Your task to perform on an android device: turn on showing notifications on the lock screen Image 0: 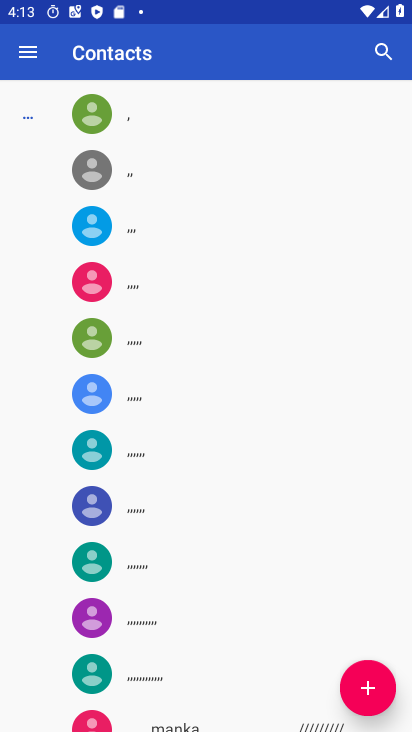
Step 0: press home button
Your task to perform on an android device: turn on showing notifications on the lock screen Image 1: 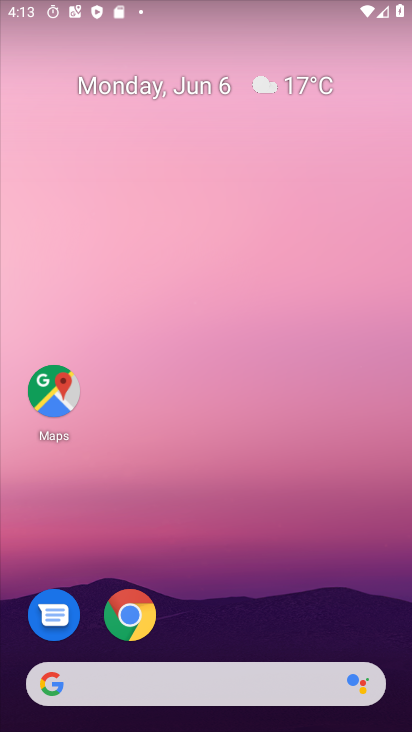
Step 1: drag from (187, 695) to (264, 6)
Your task to perform on an android device: turn on showing notifications on the lock screen Image 2: 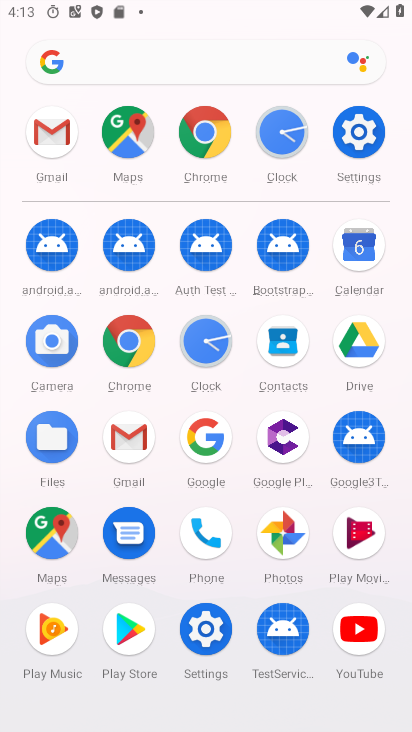
Step 2: click (374, 132)
Your task to perform on an android device: turn on showing notifications on the lock screen Image 3: 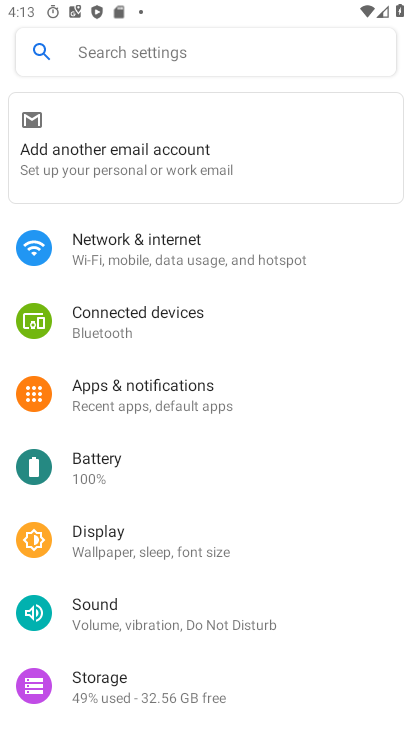
Step 3: click (190, 395)
Your task to perform on an android device: turn on showing notifications on the lock screen Image 4: 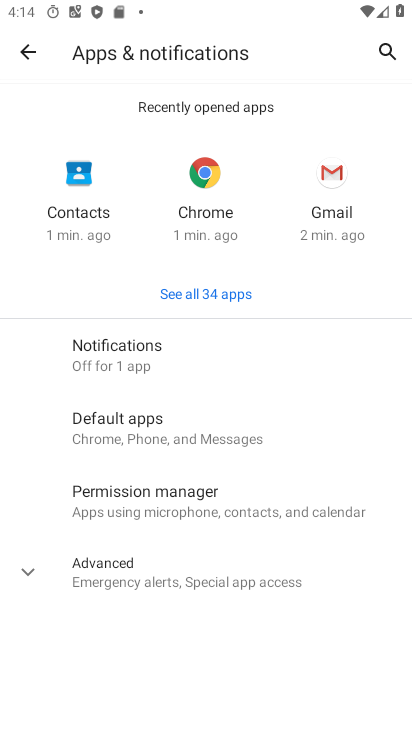
Step 4: click (138, 368)
Your task to perform on an android device: turn on showing notifications on the lock screen Image 5: 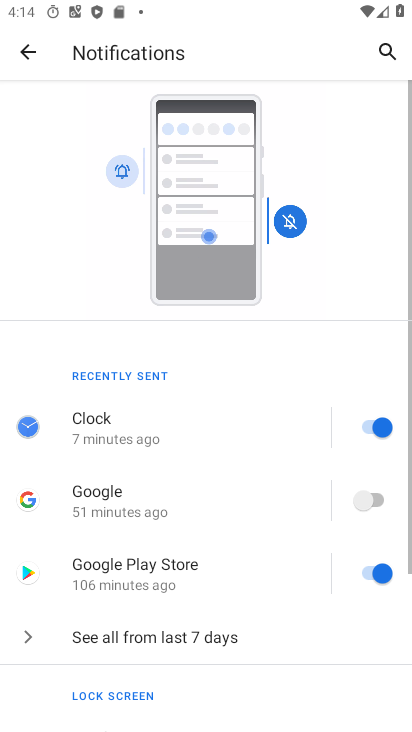
Step 5: drag from (207, 674) to (269, 155)
Your task to perform on an android device: turn on showing notifications on the lock screen Image 6: 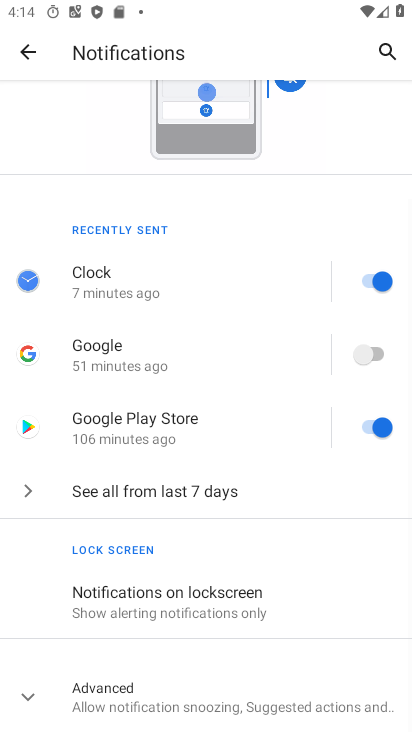
Step 6: click (222, 601)
Your task to perform on an android device: turn on showing notifications on the lock screen Image 7: 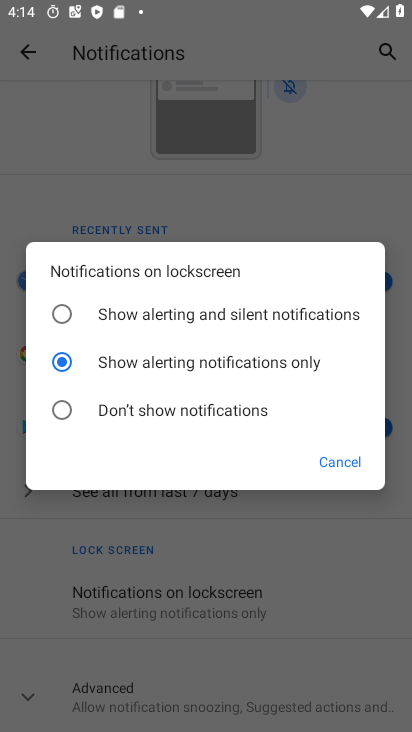
Step 7: click (59, 320)
Your task to perform on an android device: turn on showing notifications on the lock screen Image 8: 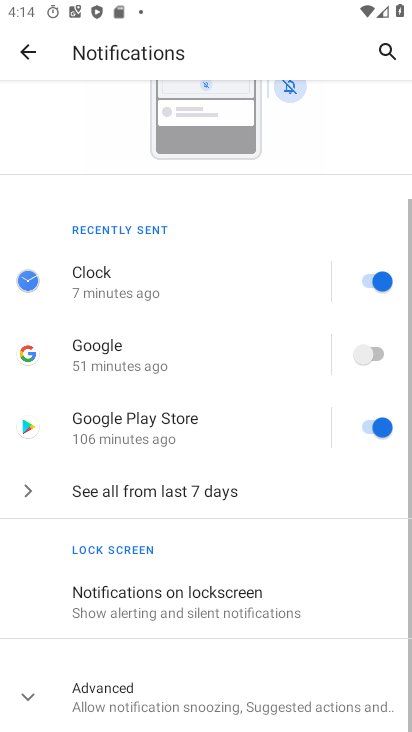
Step 8: task complete